Your task to perform on an android device: open app "Nova Launcher" (install if not already installed) Image 0: 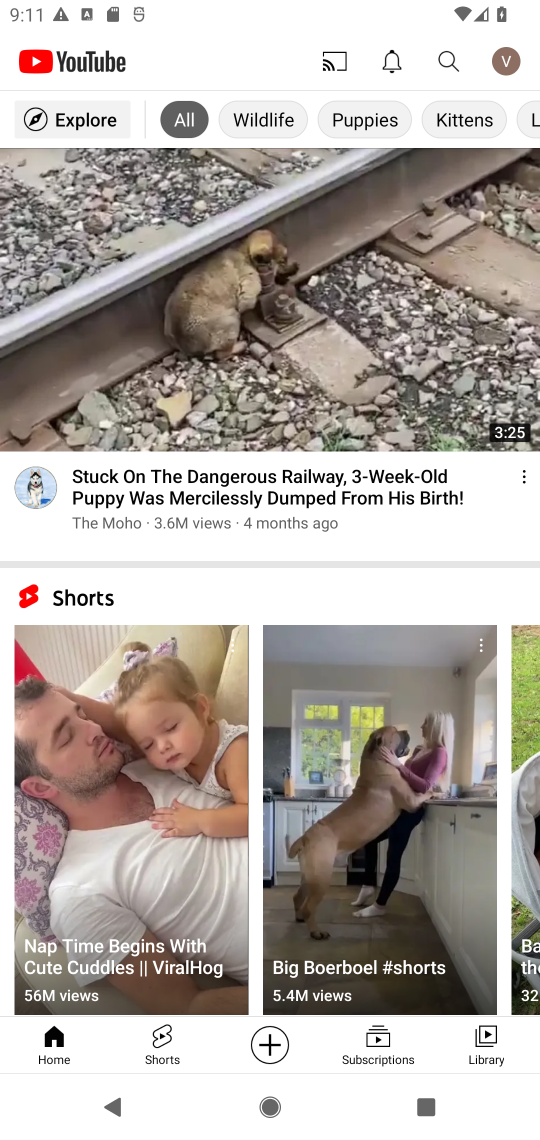
Step 0: press home button
Your task to perform on an android device: open app "Nova Launcher" (install if not already installed) Image 1: 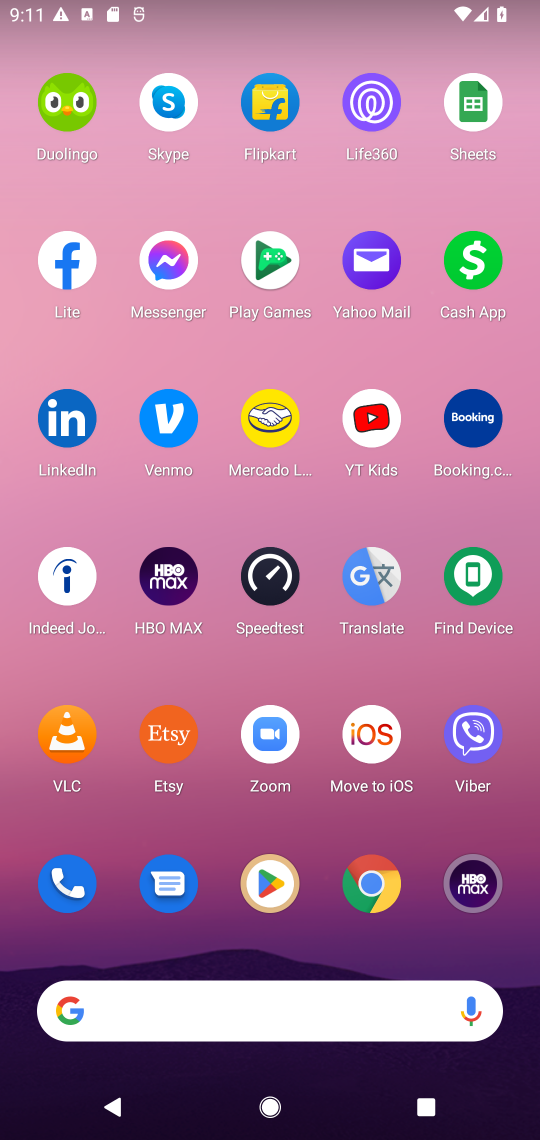
Step 1: click (277, 881)
Your task to perform on an android device: open app "Nova Launcher" (install if not already installed) Image 2: 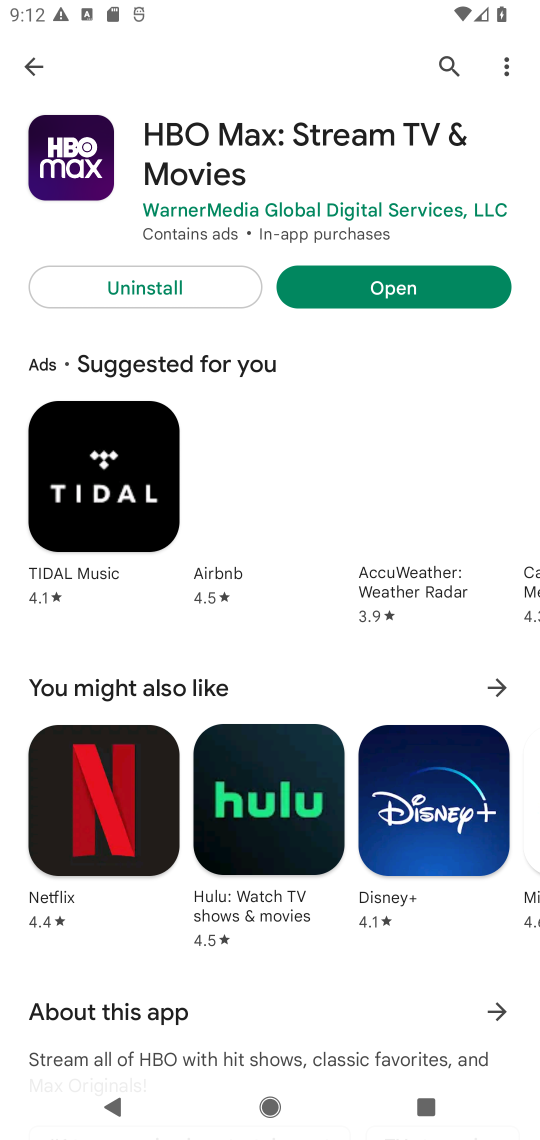
Step 2: click (450, 63)
Your task to perform on an android device: open app "Nova Launcher" (install if not already installed) Image 3: 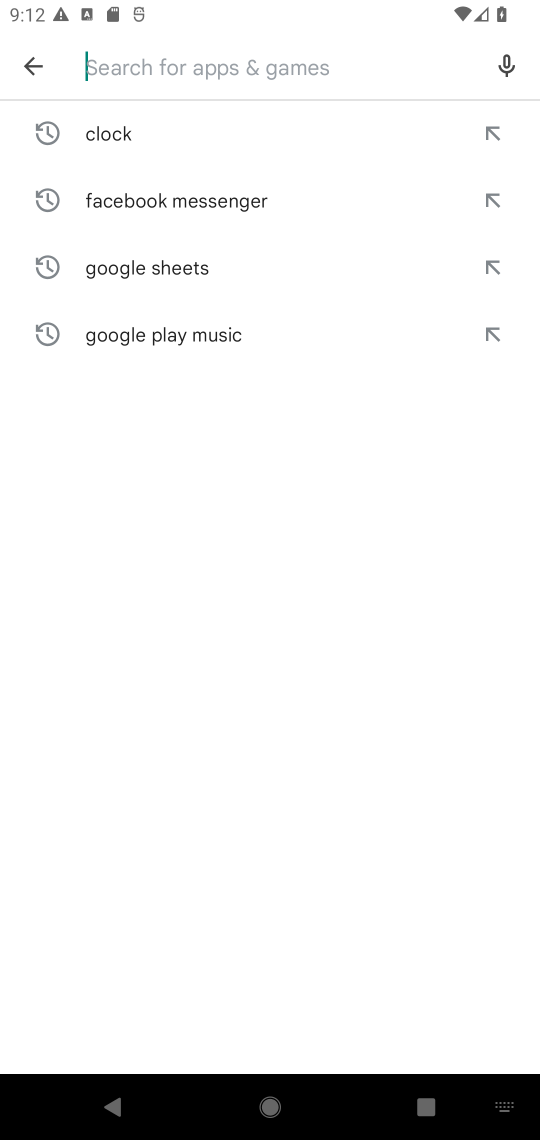
Step 3: type "Nova Launcher"
Your task to perform on an android device: open app "Nova Launcher" (install if not already installed) Image 4: 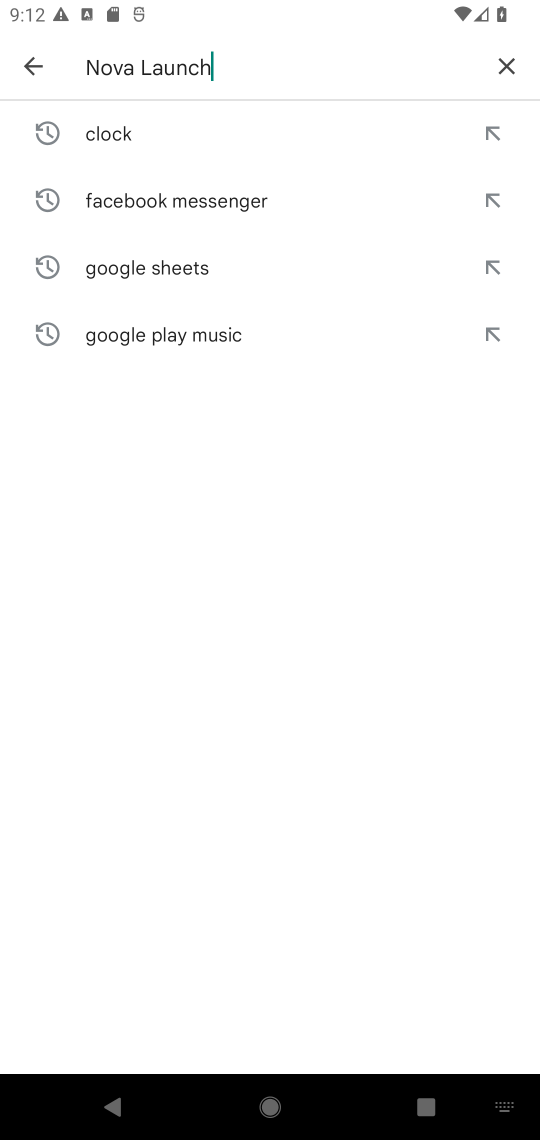
Step 4: type ""
Your task to perform on an android device: open app "Nova Launcher" (install if not already installed) Image 5: 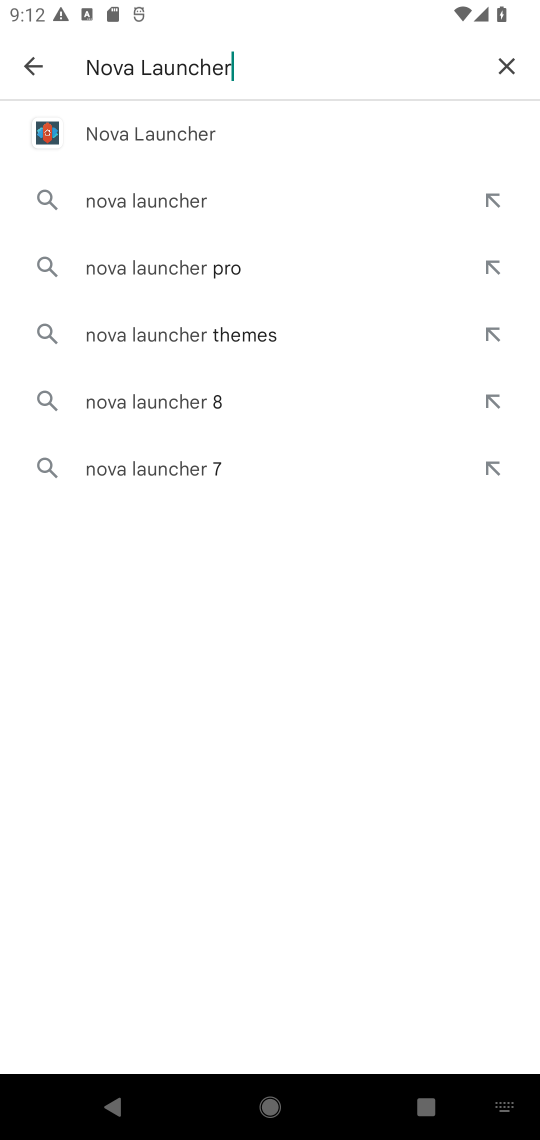
Step 5: click (157, 129)
Your task to perform on an android device: open app "Nova Launcher" (install if not already installed) Image 6: 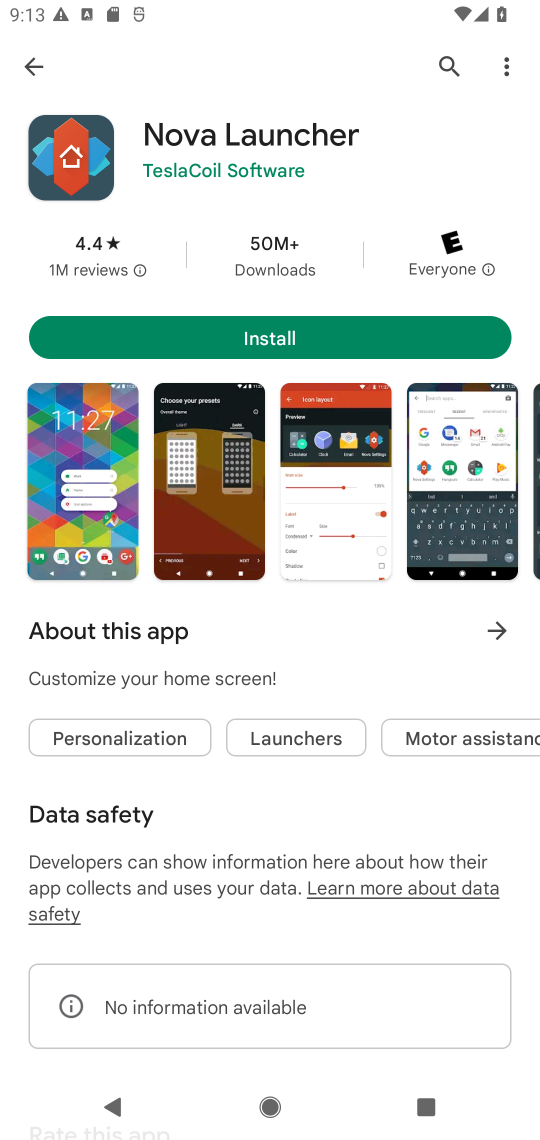
Step 6: click (333, 344)
Your task to perform on an android device: open app "Nova Launcher" (install if not already installed) Image 7: 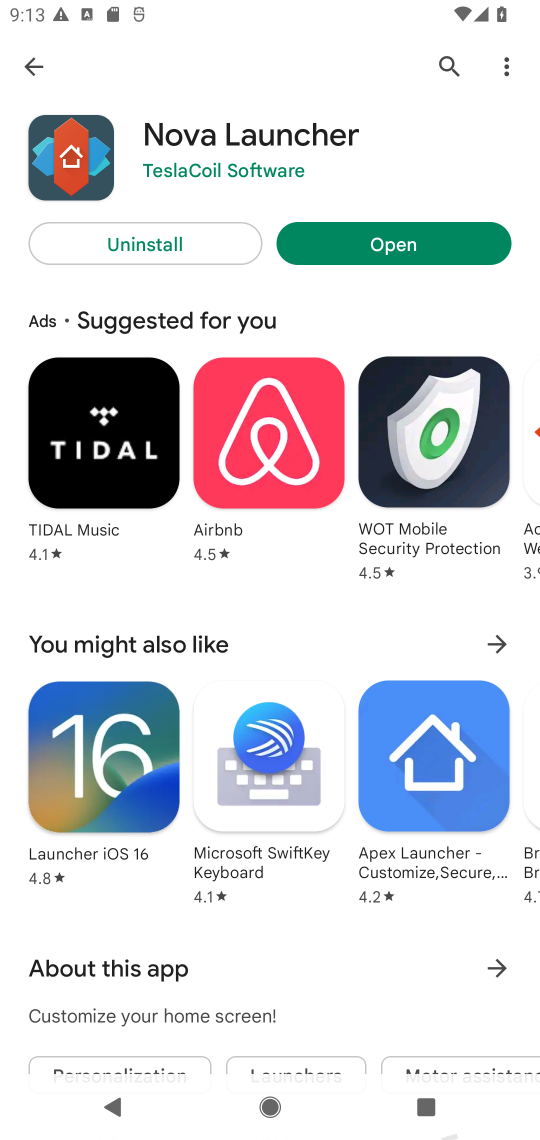
Step 7: click (385, 243)
Your task to perform on an android device: open app "Nova Launcher" (install if not already installed) Image 8: 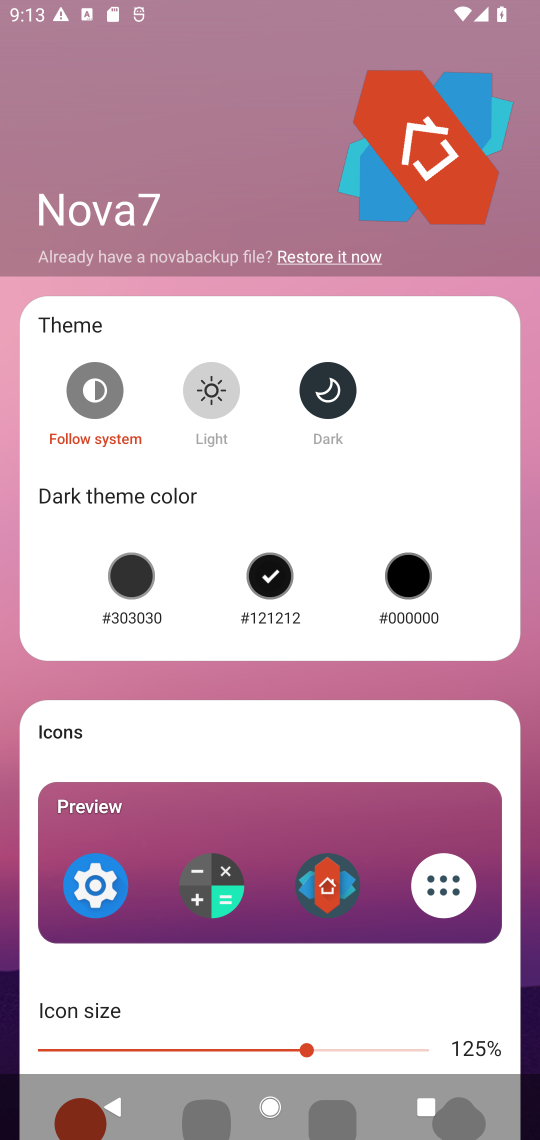
Step 8: task complete